Your task to perform on an android device: see creations saved in the google photos Image 0: 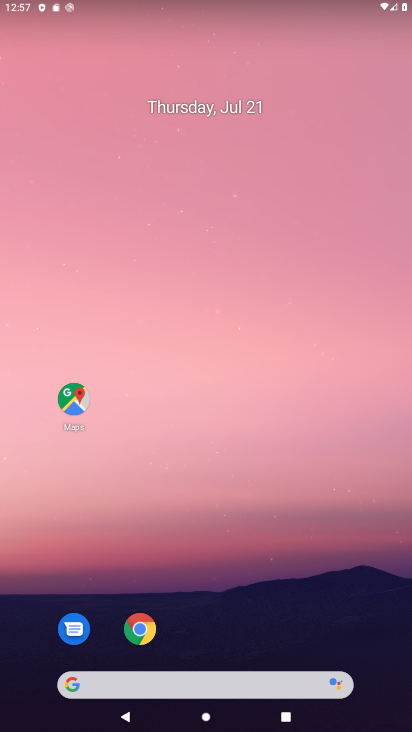
Step 0: drag from (44, 687) to (180, 383)
Your task to perform on an android device: see creations saved in the google photos Image 1: 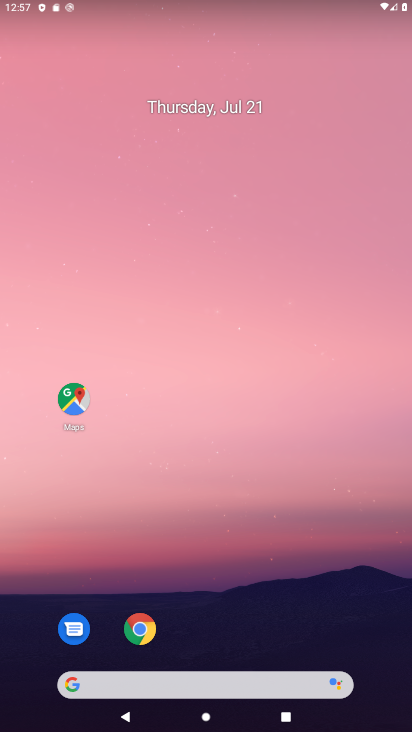
Step 1: drag from (71, 595) to (277, 130)
Your task to perform on an android device: see creations saved in the google photos Image 2: 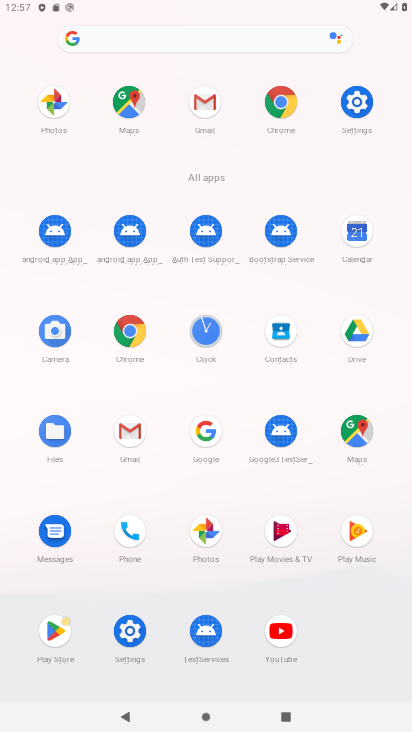
Step 2: click (205, 539)
Your task to perform on an android device: see creations saved in the google photos Image 3: 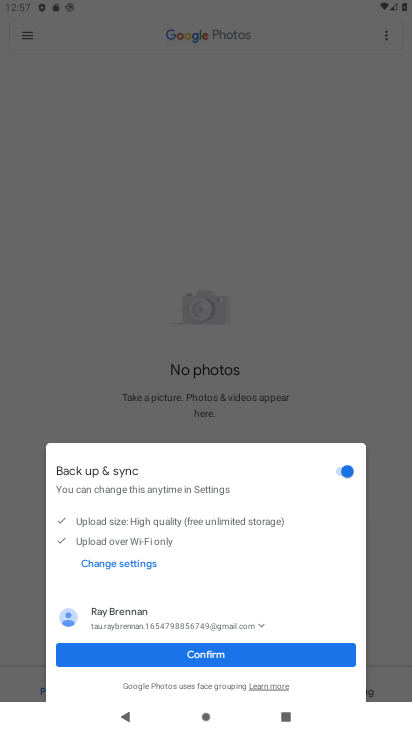
Step 3: click (182, 664)
Your task to perform on an android device: see creations saved in the google photos Image 4: 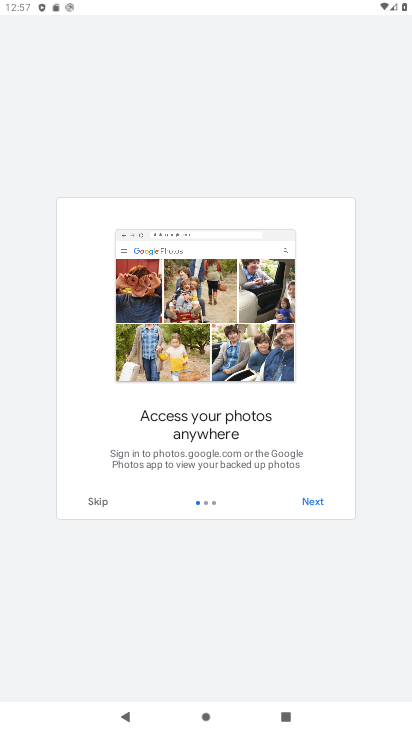
Step 4: click (299, 495)
Your task to perform on an android device: see creations saved in the google photos Image 5: 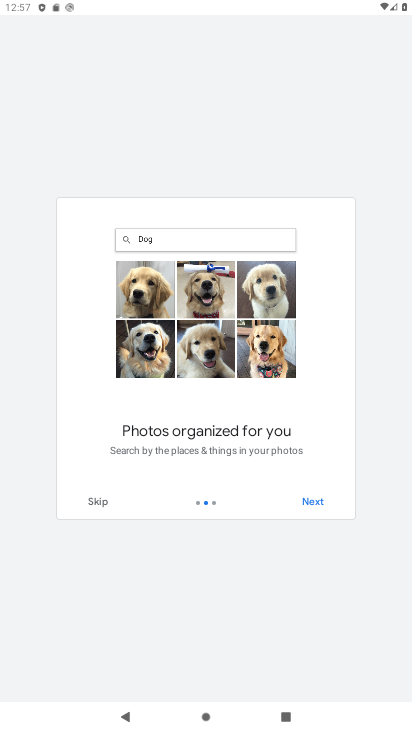
Step 5: click (307, 500)
Your task to perform on an android device: see creations saved in the google photos Image 6: 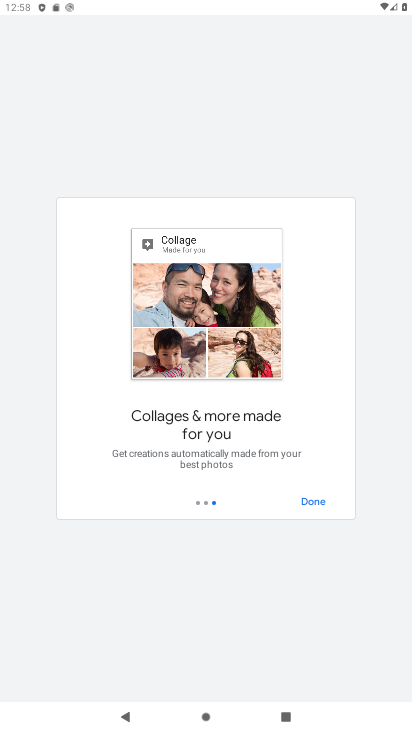
Step 6: click (318, 499)
Your task to perform on an android device: see creations saved in the google photos Image 7: 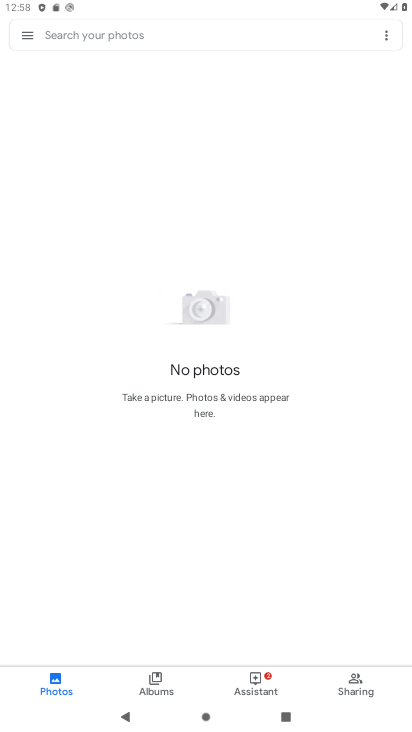
Step 7: click (13, 42)
Your task to perform on an android device: see creations saved in the google photos Image 8: 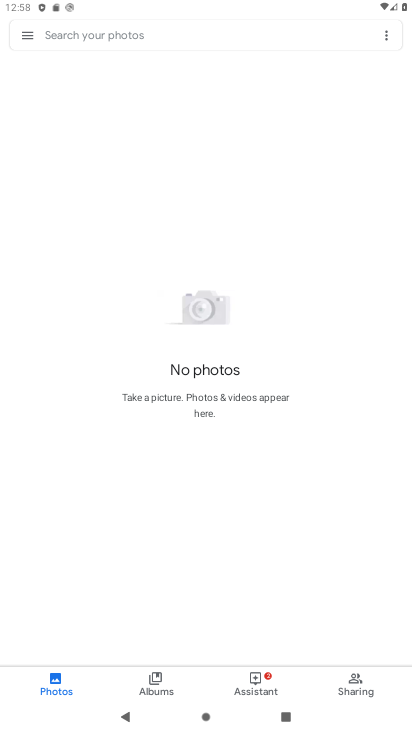
Step 8: click (20, 35)
Your task to perform on an android device: see creations saved in the google photos Image 9: 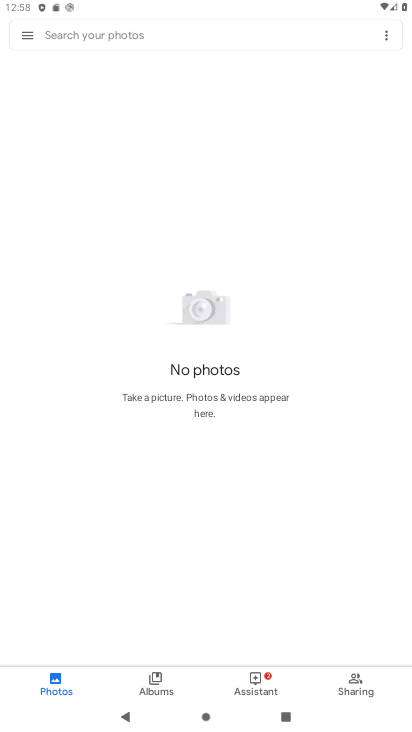
Step 9: task complete